Your task to perform on an android device: Open Chrome and go to the settings page Image 0: 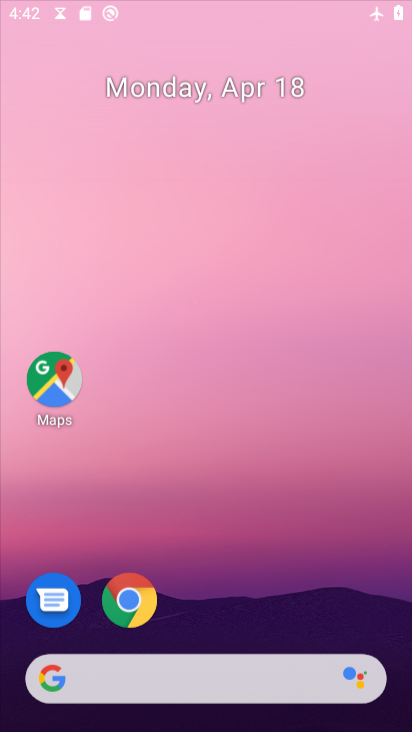
Step 0: drag from (251, 376) to (410, 98)
Your task to perform on an android device: Open Chrome and go to the settings page Image 1: 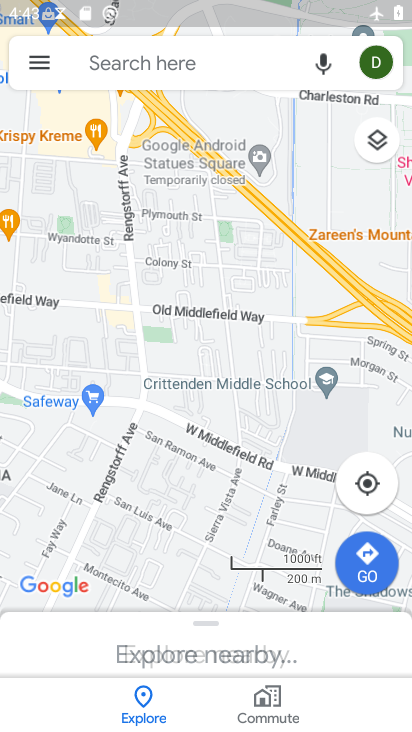
Step 1: press home button
Your task to perform on an android device: Open Chrome and go to the settings page Image 2: 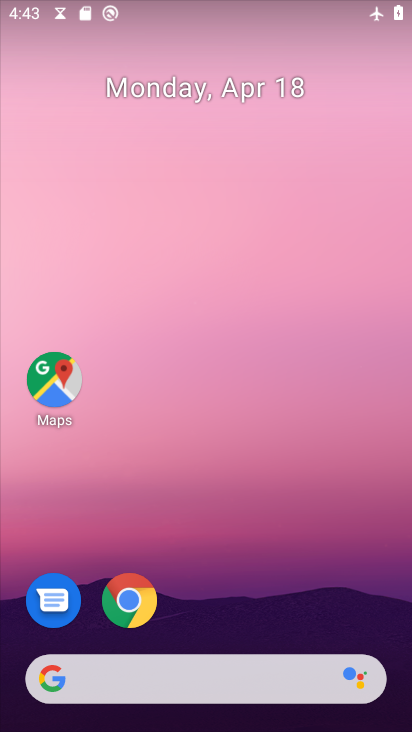
Step 2: click (121, 607)
Your task to perform on an android device: Open Chrome and go to the settings page Image 3: 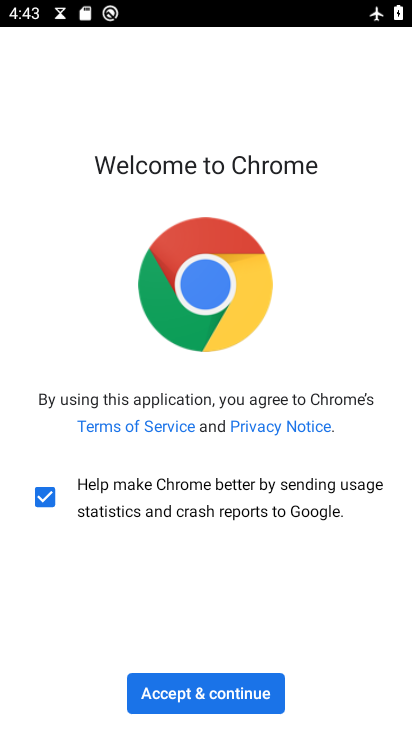
Step 3: click (204, 697)
Your task to perform on an android device: Open Chrome and go to the settings page Image 4: 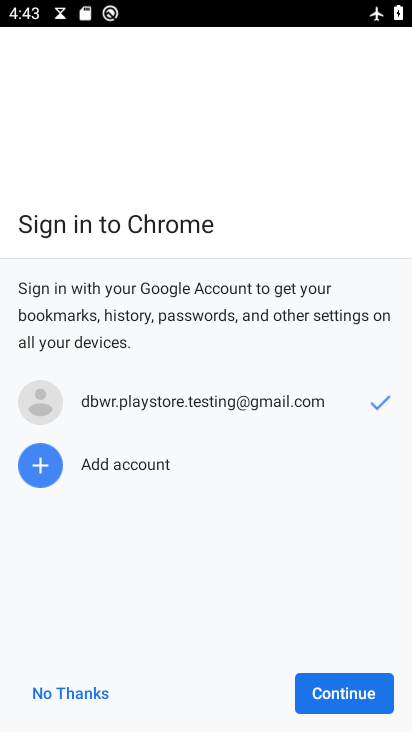
Step 4: click (370, 701)
Your task to perform on an android device: Open Chrome and go to the settings page Image 5: 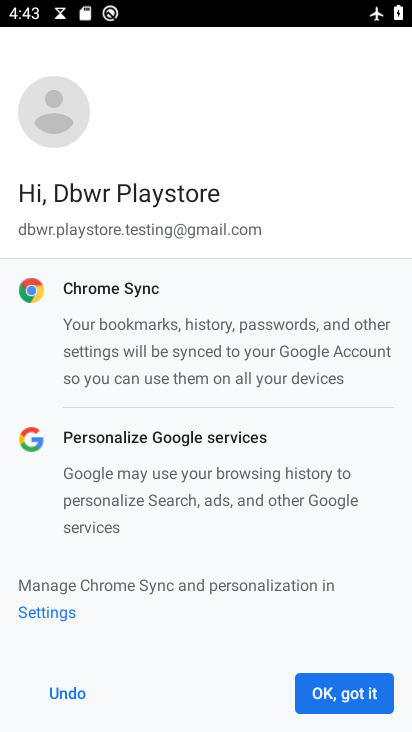
Step 5: click (343, 689)
Your task to perform on an android device: Open Chrome and go to the settings page Image 6: 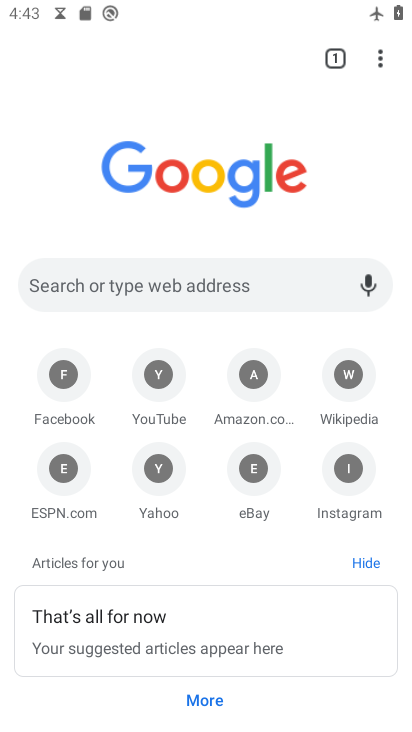
Step 6: click (387, 54)
Your task to perform on an android device: Open Chrome and go to the settings page Image 7: 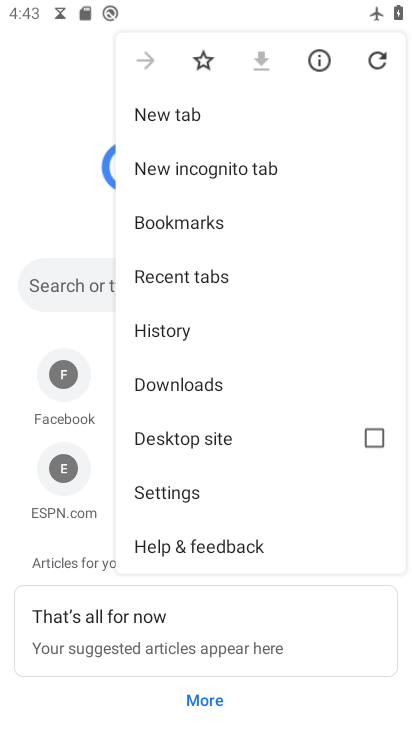
Step 7: click (183, 493)
Your task to perform on an android device: Open Chrome and go to the settings page Image 8: 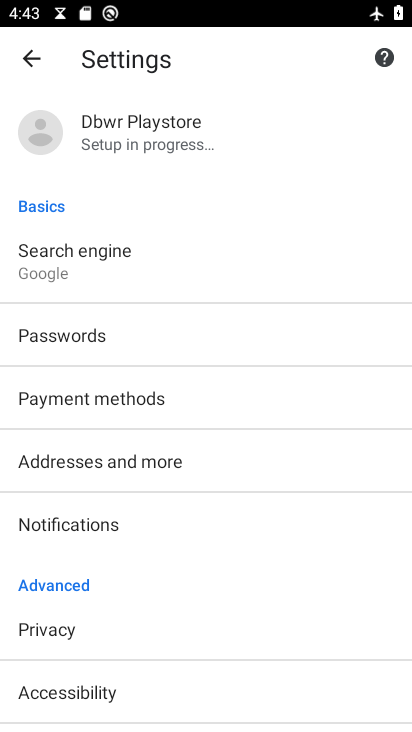
Step 8: task complete